Your task to perform on an android device: turn off airplane mode Image 0: 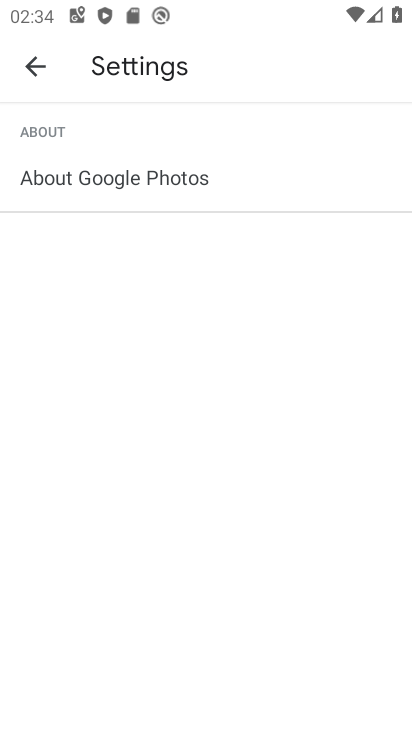
Step 0: press home button
Your task to perform on an android device: turn off airplane mode Image 1: 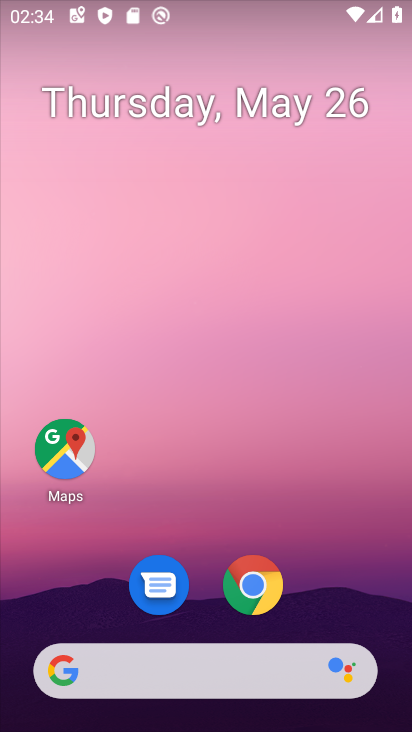
Step 1: drag from (197, 513) to (243, 75)
Your task to perform on an android device: turn off airplane mode Image 2: 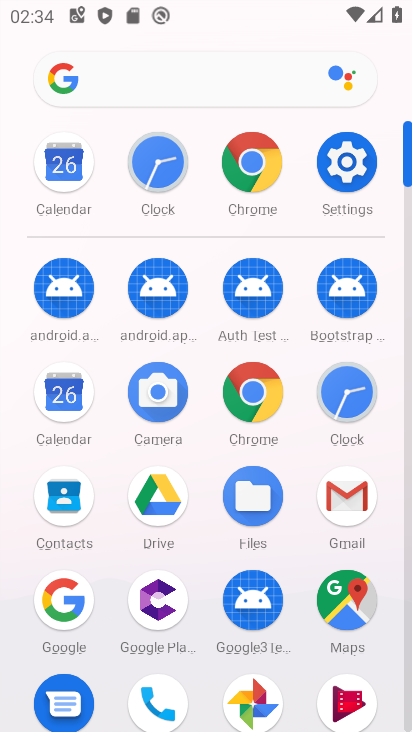
Step 2: click (338, 171)
Your task to perform on an android device: turn off airplane mode Image 3: 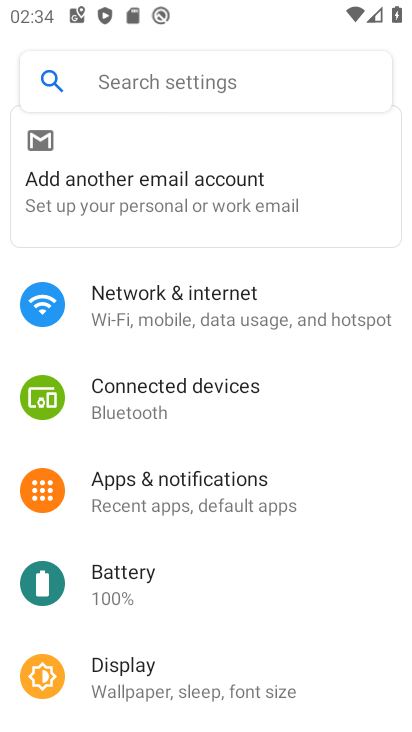
Step 3: click (224, 303)
Your task to perform on an android device: turn off airplane mode Image 4: 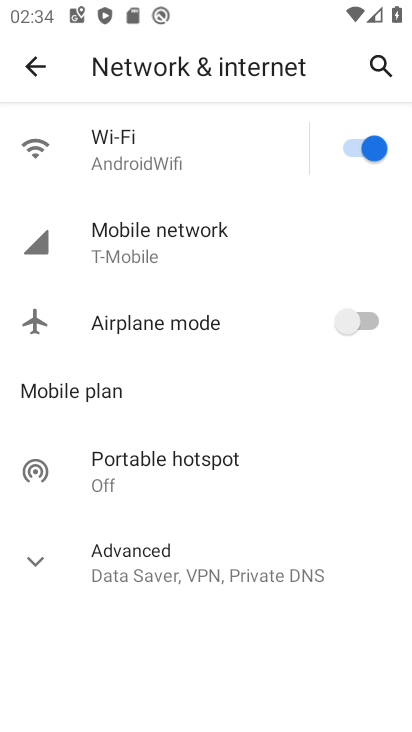
Step 4: task complete